Your task to perform on an android device: check android version Image 0: 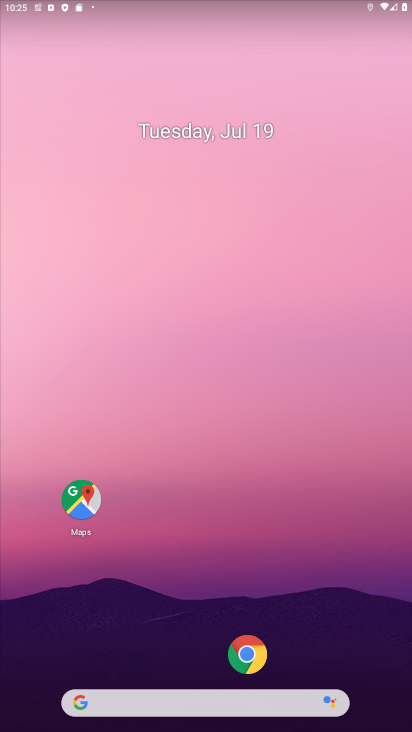
Step 0: drag from (194, 653) to (214, 156)
Your task to perform on an android device: check android version Image 1: 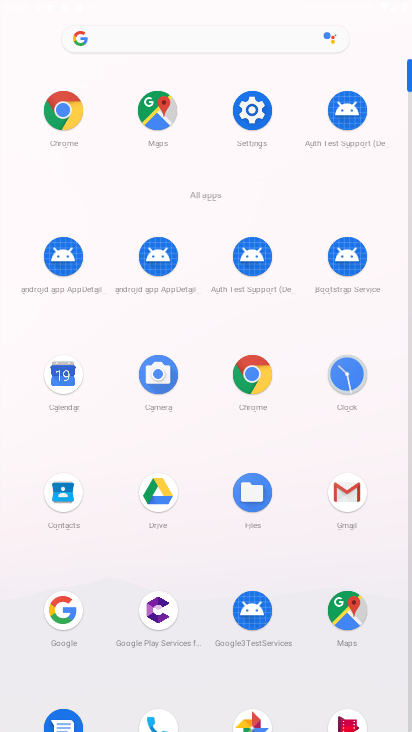
Step 1: click (271, 117)
Your task to perform on an android device: check android version Image 2: 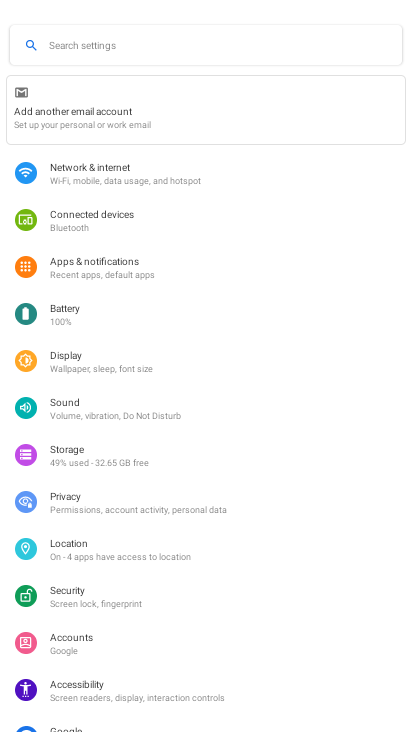
Step 2: drag from (155, 710) to (167, 183)
Your task to perform on an android device: check android version Image 3: 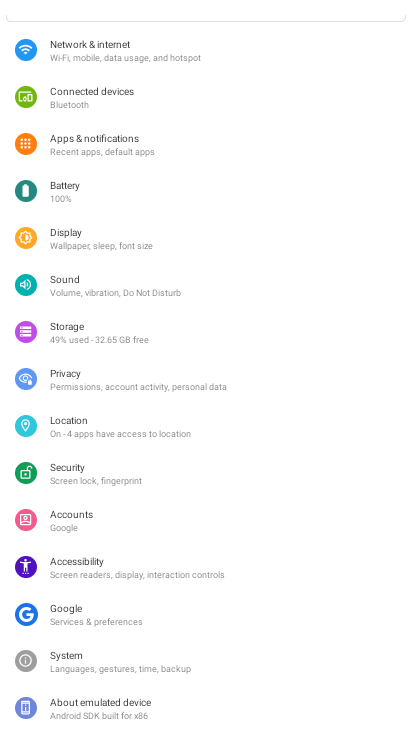
Step 3: click (153, 700)
Your task to perform on an android device: check android version Image 4: 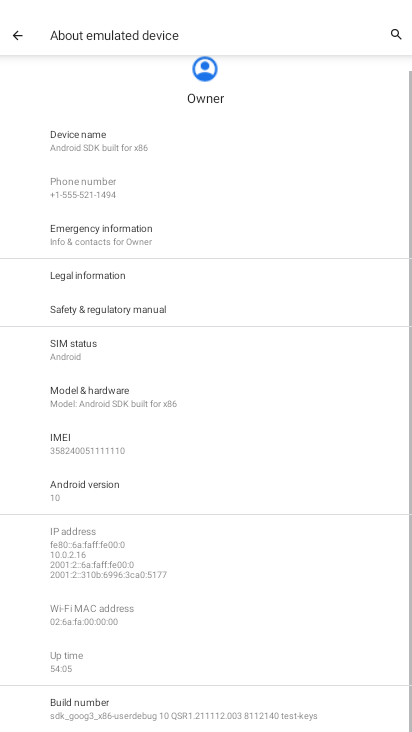
Step 4: click (149, 502)
Your task to perform on an android device: check android version Image 5: 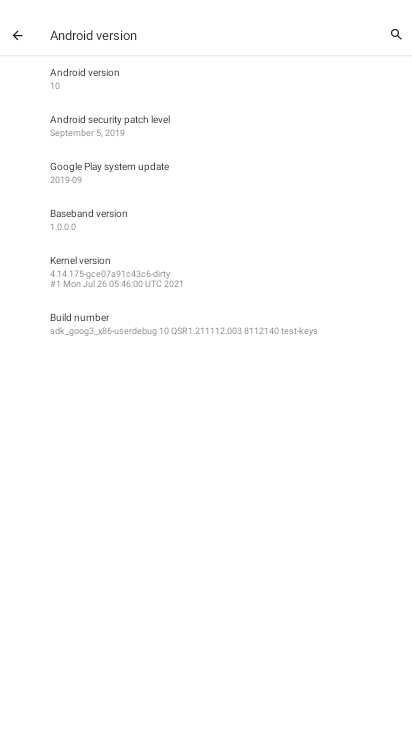
Step 5: task complete